Your task to perform on an android device: open app "Firefox Browser" (install if not already installed), go to login, and select forgot password Image 0: 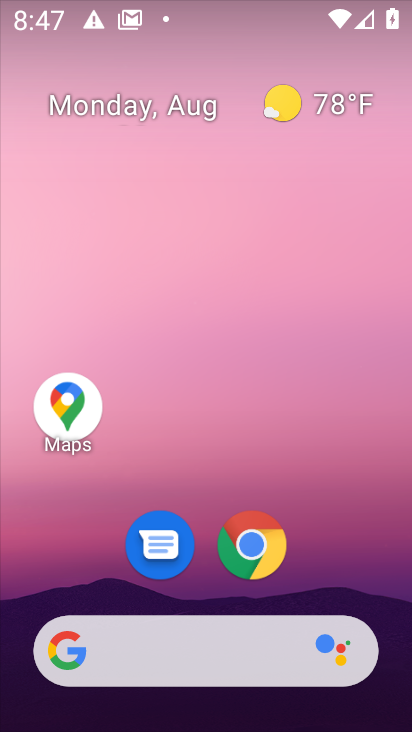
Step 0: drag from (369, 554) to (368, 63)
Your task to perform on an android device: open app "Firefox Browser" (install if not already installed), go to login, and select forgot password Image 1: 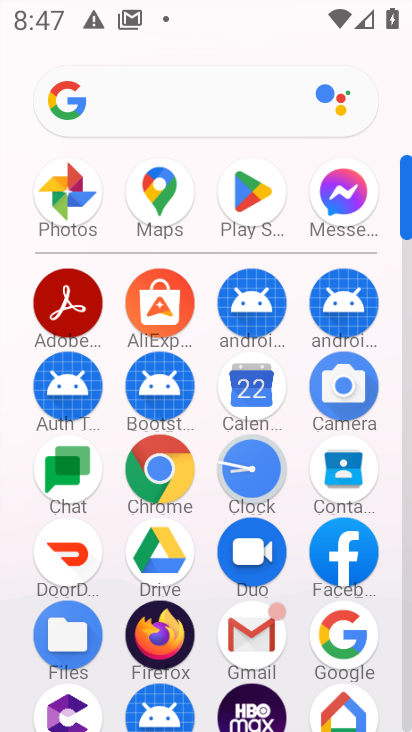
Step 1: click (258, 193)
Your task to perform on an android device: open app "Firefox Browser" (install if not already installed), go to login, and select forgot password Image 2: 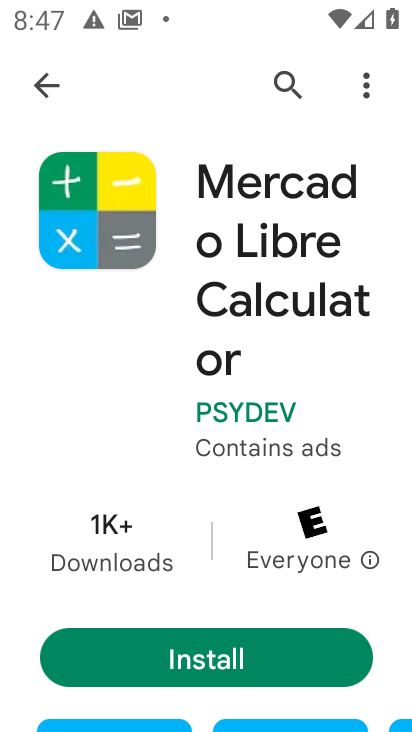
Step 2: press back button
Your task to perform on an android device: open app "Firefox Browser" (install if not already installed), go to login, and select forgot password Image 3: 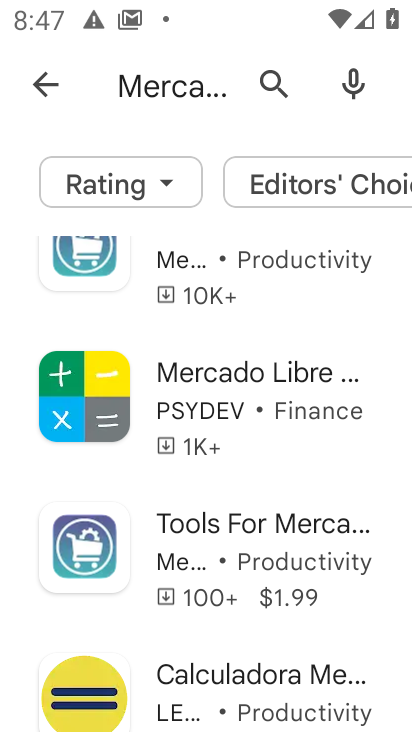
Step 3: press back button
Your task to perform on an android device: open app "Firefox Browser" (install if not already installed), go to login, and select forgot password Image 4: 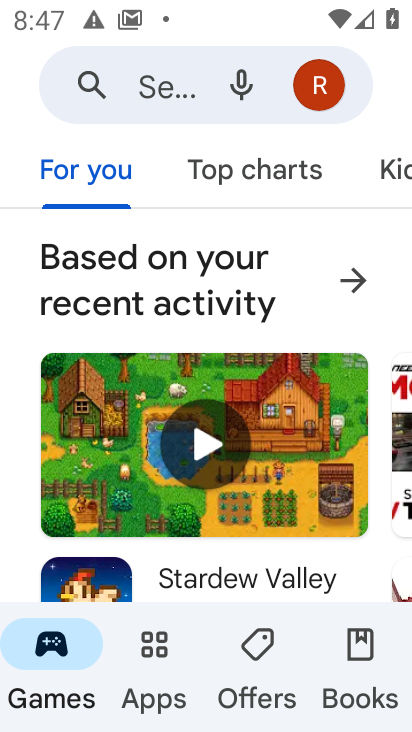
Step 4: click (181, 86)
Your task to perform on an android device: open app "Firefox Browser" (install if not already installed), go to login, and select forgot password Image 5: 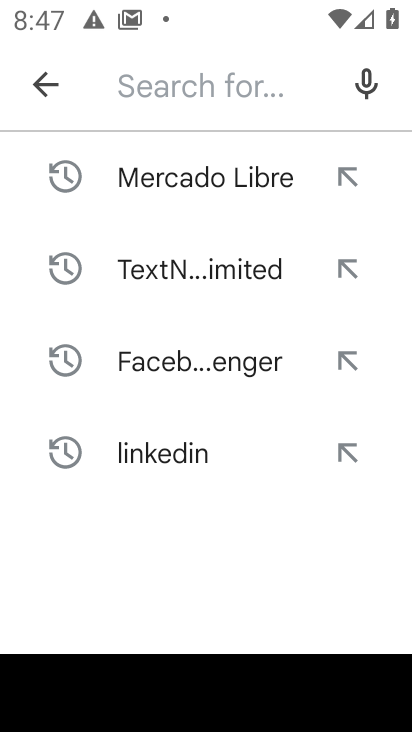
Step 5: type "Firefox Browser"
Your task to perform on an android device: open app "Firefox Browser" (install if not already installed), go to login, and select forgot password Image 6: 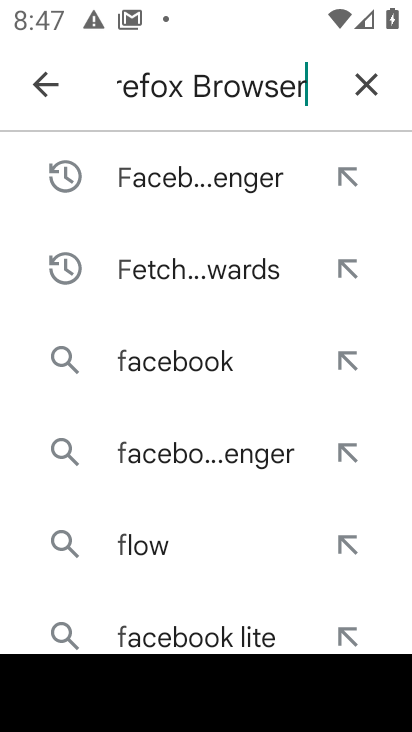
Step 6: press enter
Your task to perform on an android device: open app "Firefox Browser" (install if not already installed), go to login, and select forgot password Image 7: 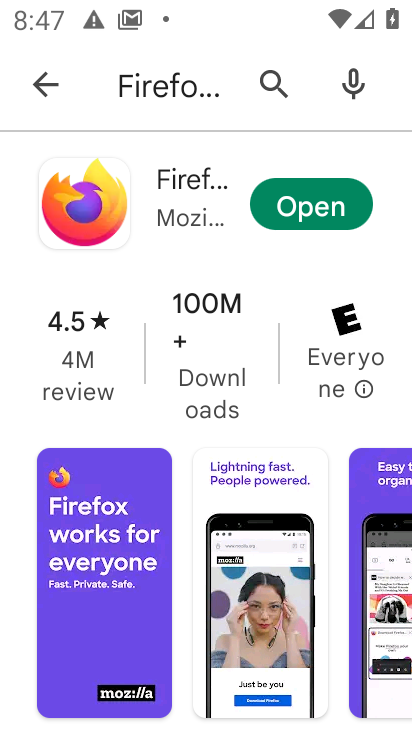
Step 7: click (303, 201)
Your task to perform on an android device: open app "Firefox Browser" (install if not already installed), go to login, and select forgot password Image 8: 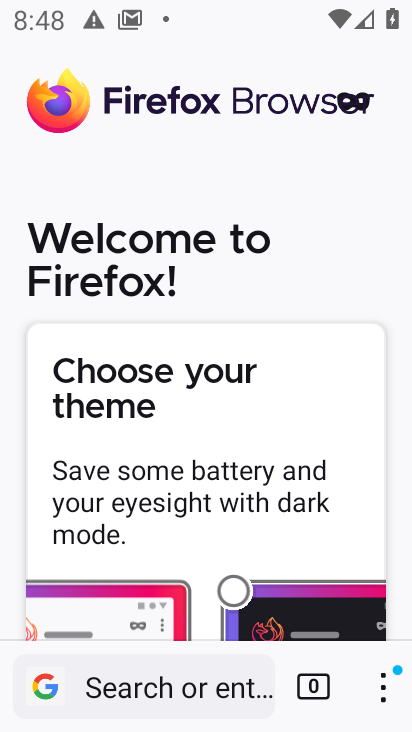
Step 8: task complete